Your task to perform on an android device: Show me popular games on the Play Store Image 0: 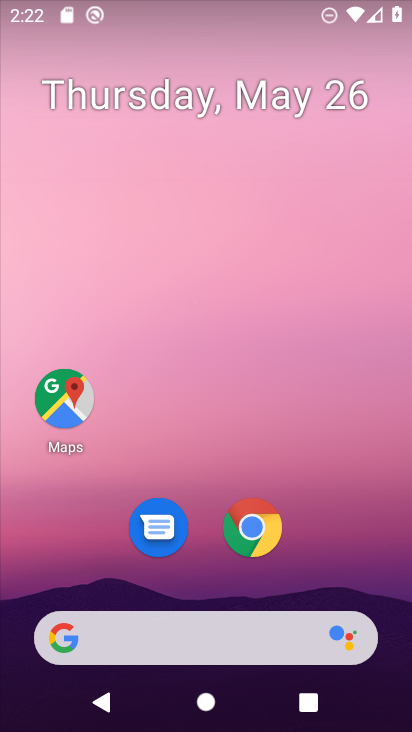
Step 0: drag from (135, 590) to (178, 96)
Your task to perform on an android device: Show me popular games on the Play Store Image 1: 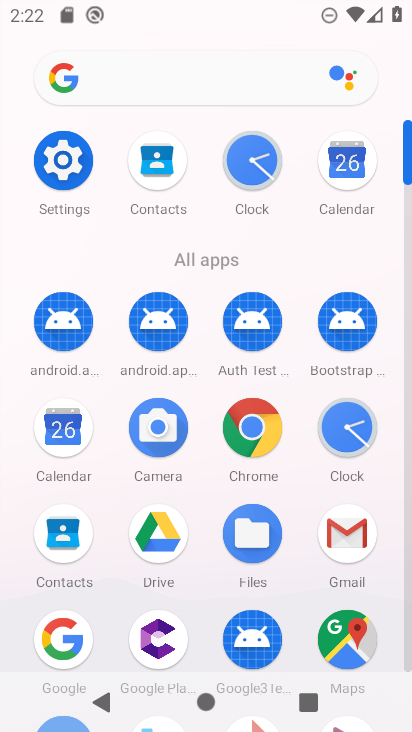
Step 1: drag from (192, 619) to (197, 183)
Your task to perform on an android device: Show me popular games on the Play Store Image 2: 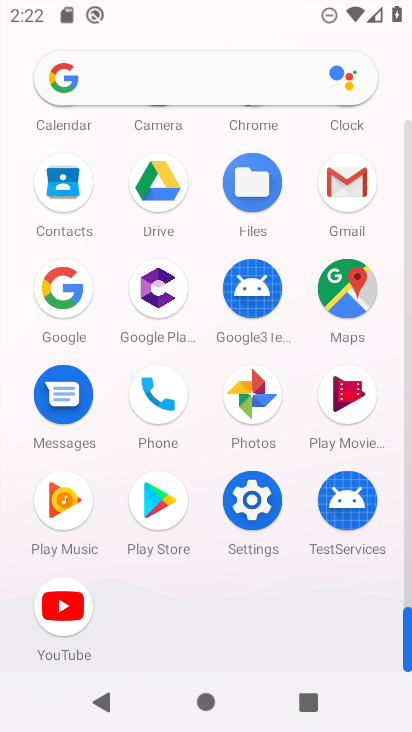
Step 2: click (154, 504)
Your task to perform on an android device: Show me popular games on the Play Store Image 3: 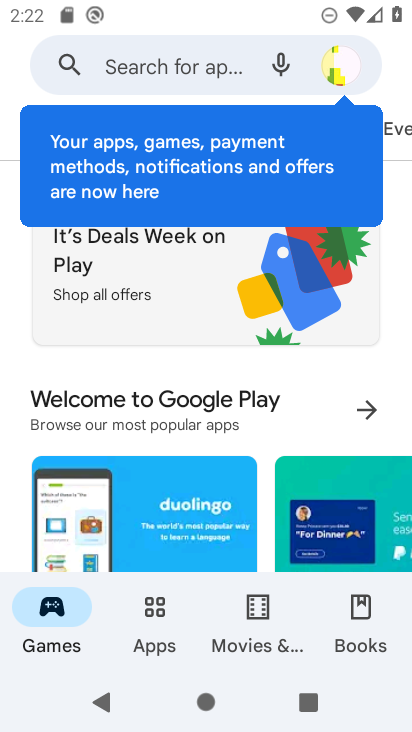
Step 3: drag from (176, 521) to (268, 153)
Your task to perform on an android device: Show me popular games on the Play Store Image 4: 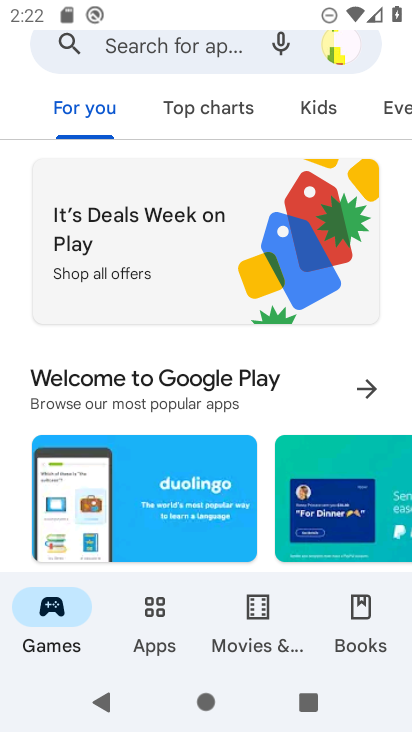
Step 4: drag from (243, 454) to (303, 8)
Your task to perform on an android device: Show me popular games on the Play Store Image 5: 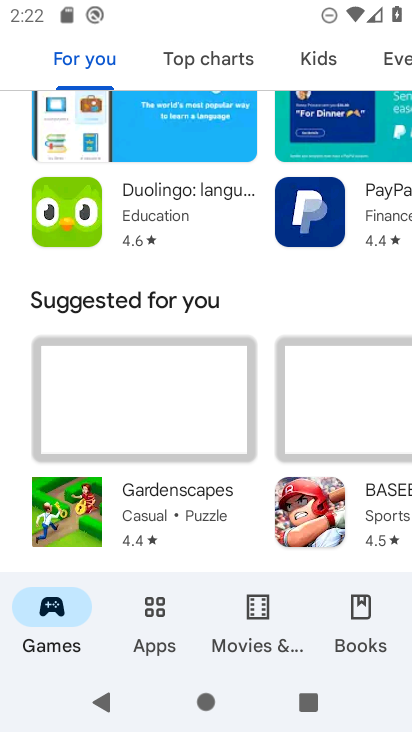
Step 5: drag from (253, 529) to (343, 29)
Your task to perform on an android device: Show me popular games on the Play Store Image 6: 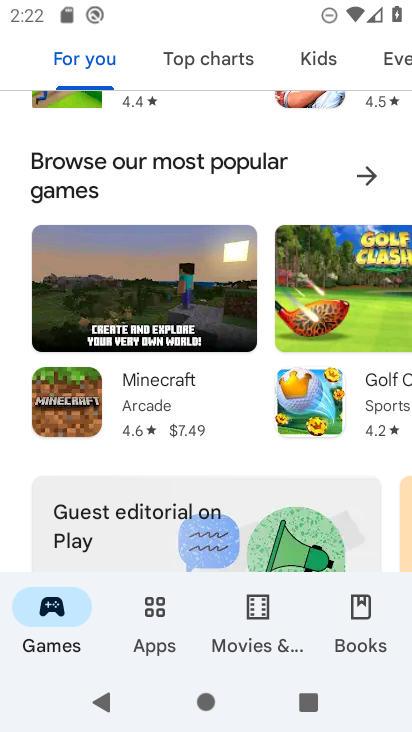
Step 6: drag from (296, 188) to (275, 329)
Your task to perform on an android device: Show me popular games on the Play Store Image 7: 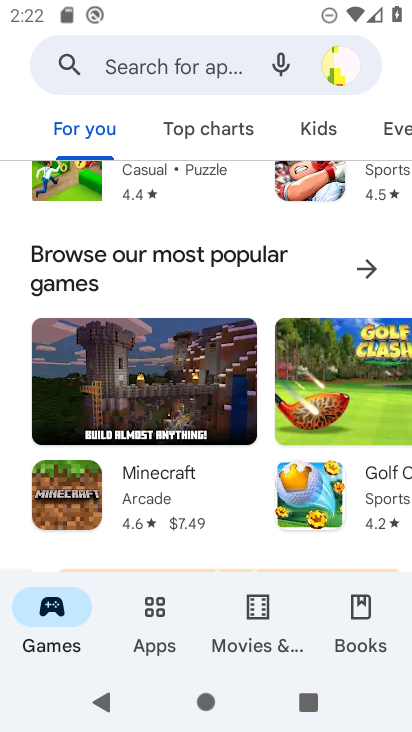
Step 7: click (352, 270)
Your task to perform on an android device: Show me popular games on the Play Store Image 8: 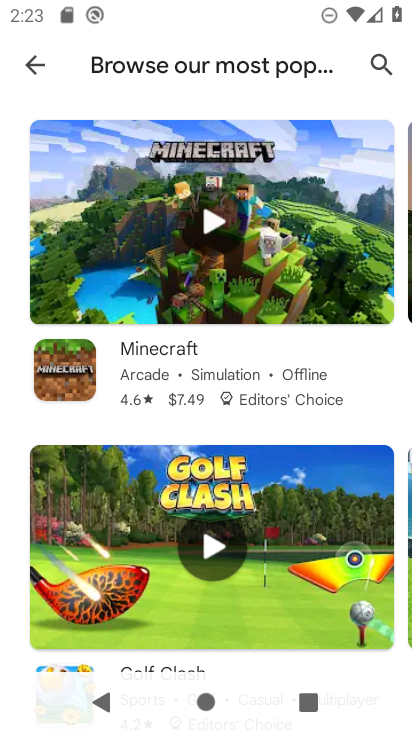
Step 8: task complete